Your task to perform on an android device: set the timer Image 0: 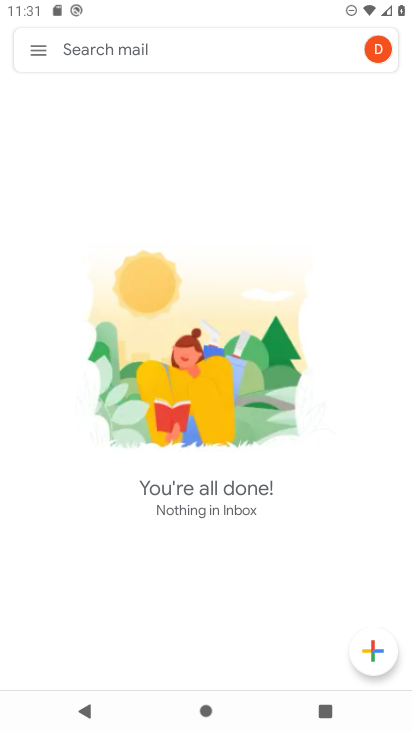
Step 0: press home button
Your task to perform on an android device: set the timer Image 1: 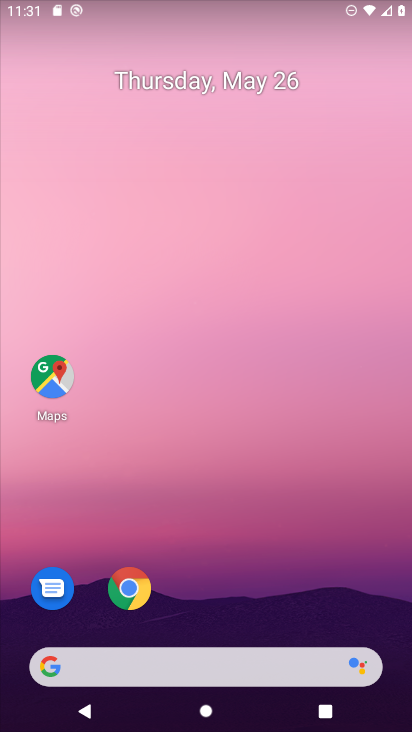
Step 1: drag from (374, 613) to (329, 92)
Your task to perform on an android device: set the timer Image 2: 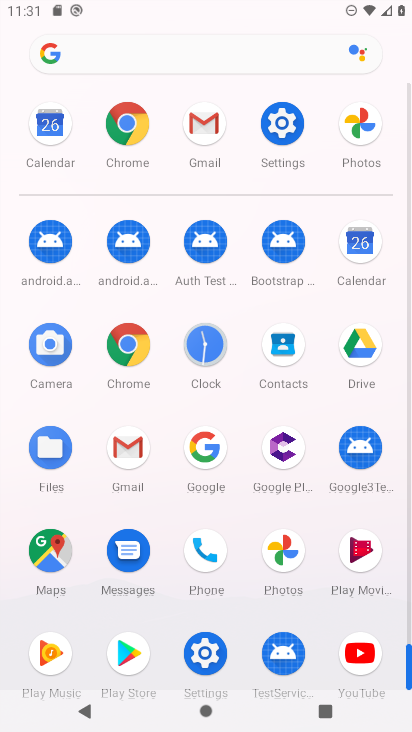
Step 2: click (206, 344)
Your task to perform on an android device: set the timer Image 3: 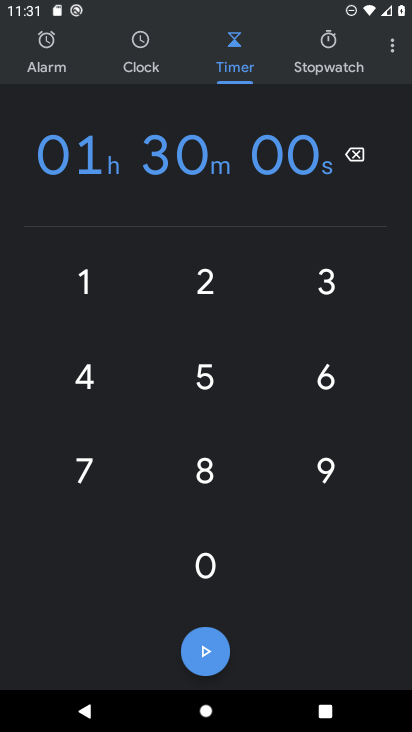
Step 3: task complete